Your task to perform on an android device: Clear all items from cart on costco. Search for sony triple a on costco, select the first entry, and add it to the cart. Image 0: 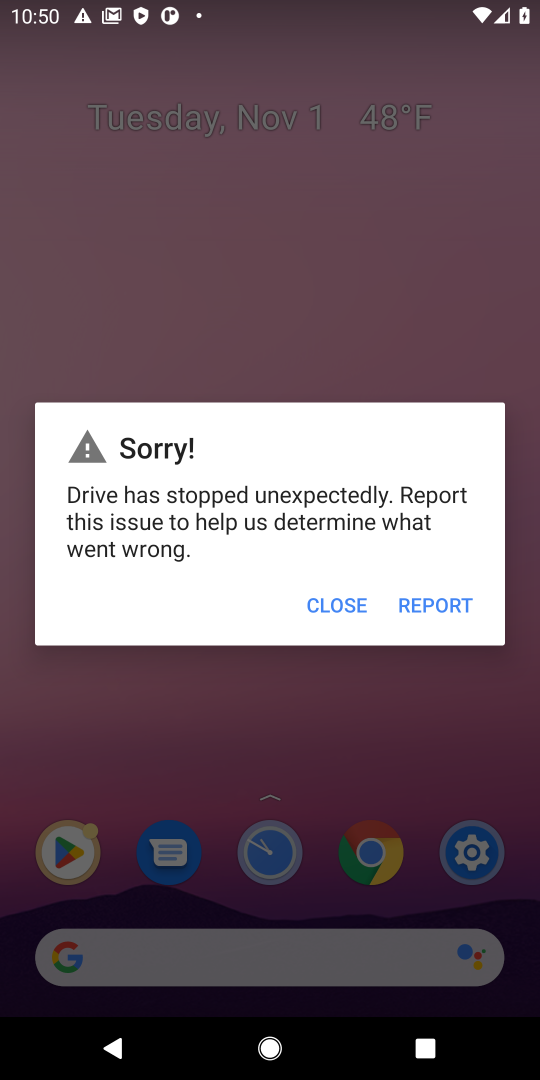
Step 0: press home button
Your task to perform on an android device: Clear all items from cart on costco. Search for sony triple a on costco, select the first entry, and add it to the cart. Image 1: 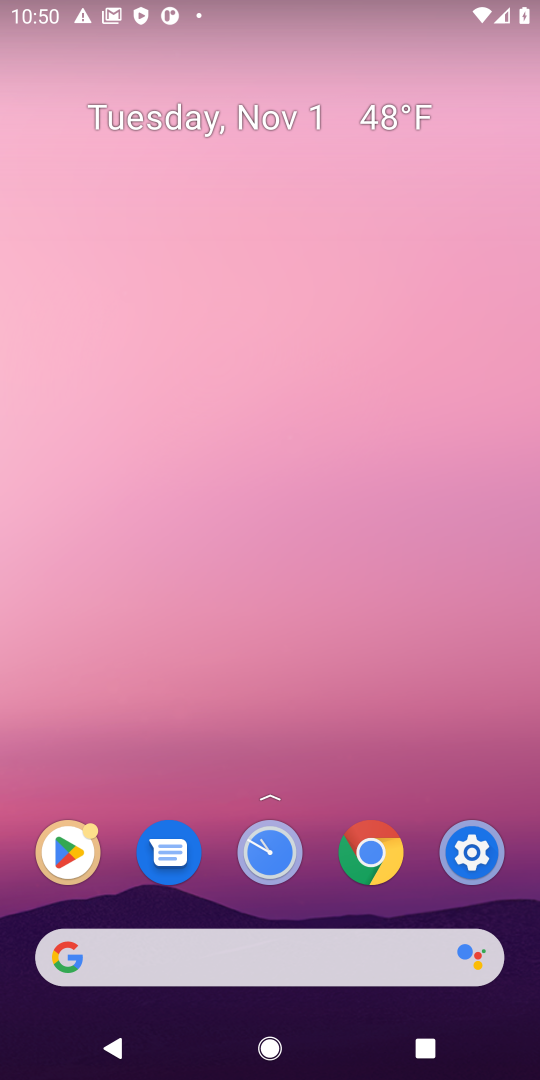
Step 1: click (247, 976)
Your task to perform on an android device: Clear all items from cart on costco. Search for sony triple a on costco, select the first entry, and add it to the cart. Image 2: 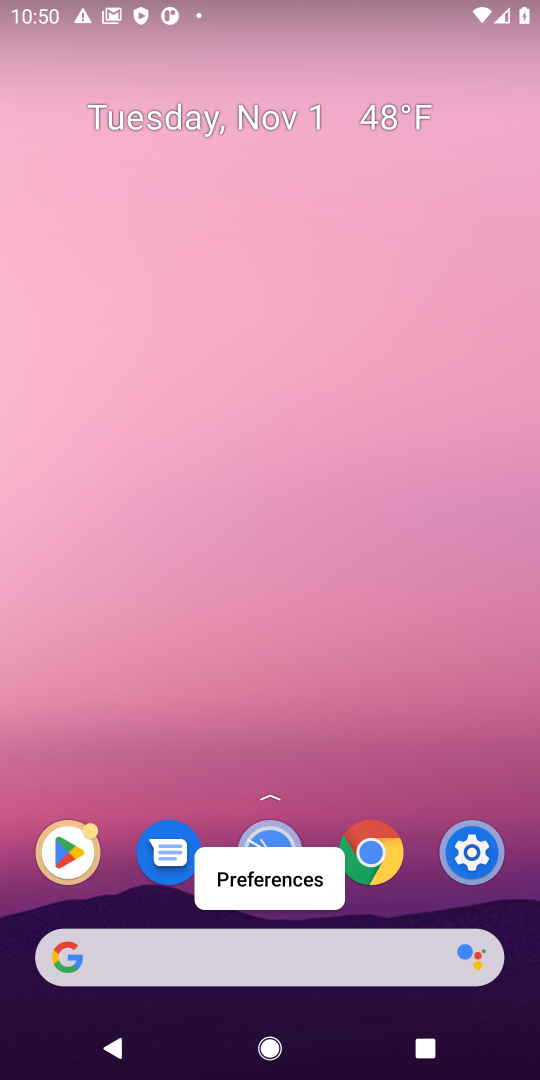
Step 2: click (391, 725)
Your task to perform on an android device: Clear all items from cart on costco. Search for sony triple a on costco, select the first entry, and add it to the cart. Image 3: 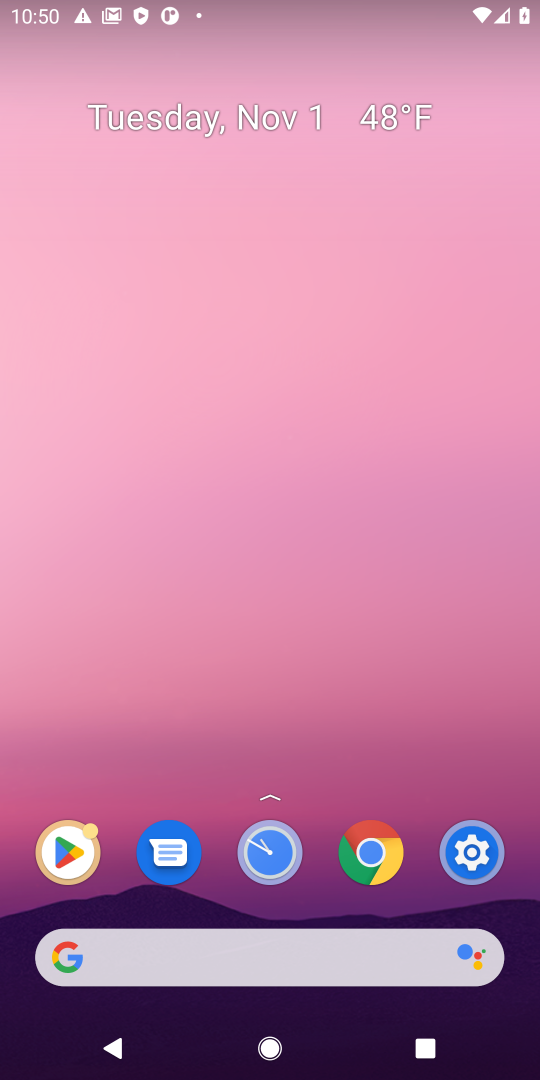
Step 3: click (323, 940)
Your task to perform on an android device: Clear all items from cart on costco. Search for sony triple a on costco, select the first entry, and add it to the cart. Image 4: 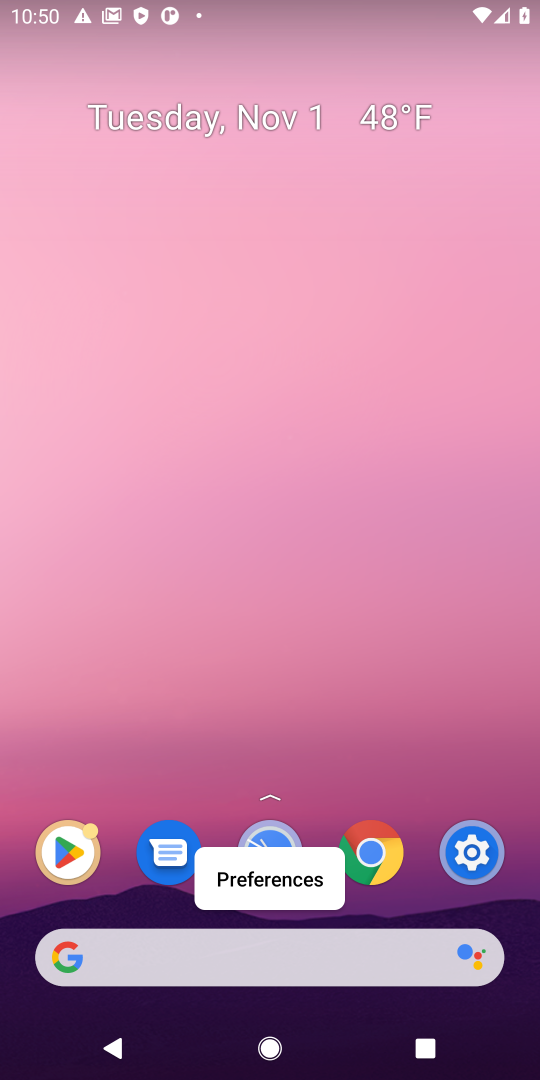
Step 4: click (323, 942)
Your task to perform on an android device: Clear all items from cart on costco. Search for sony triple a on costco, select the first entry, and add it to the cart. Image 5: 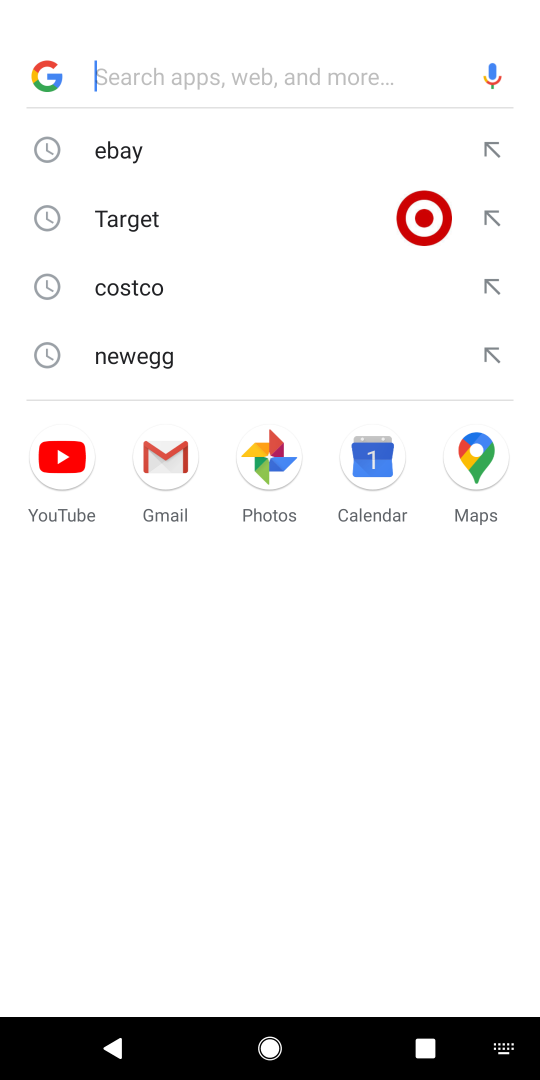
Step 5: click (162, 288)
Your task to perform on an android device: Clear all items from cart on costco. Search for sony triple a on costco, select the first entry, and add it to the cart. Image 6: 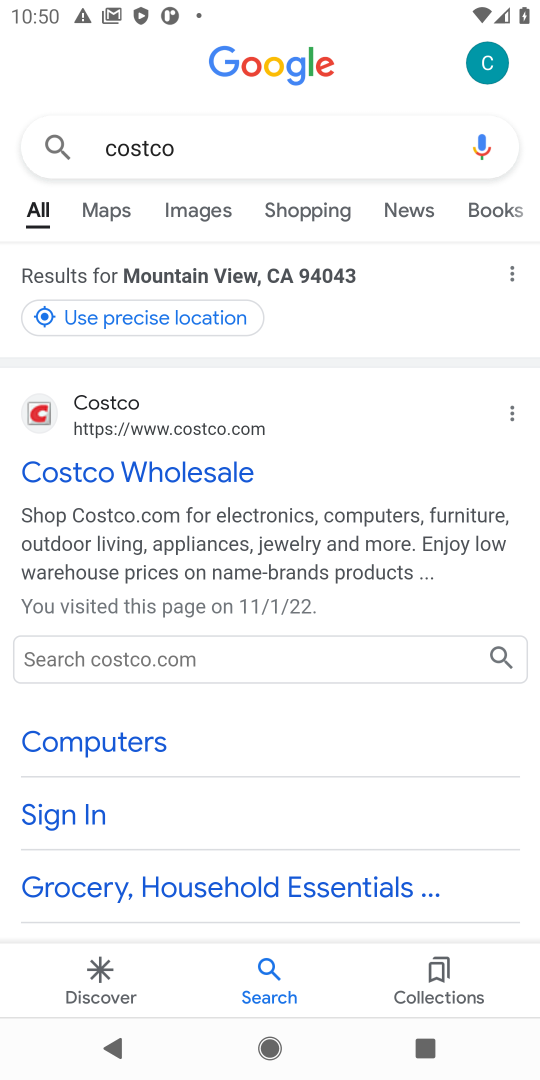
Step 6: click (141, 489)
Your task to perform on an android device: Clear all items from cart on costco. Search for sony triple a on costco, select the first entry, and add it to the cart. Image 7: 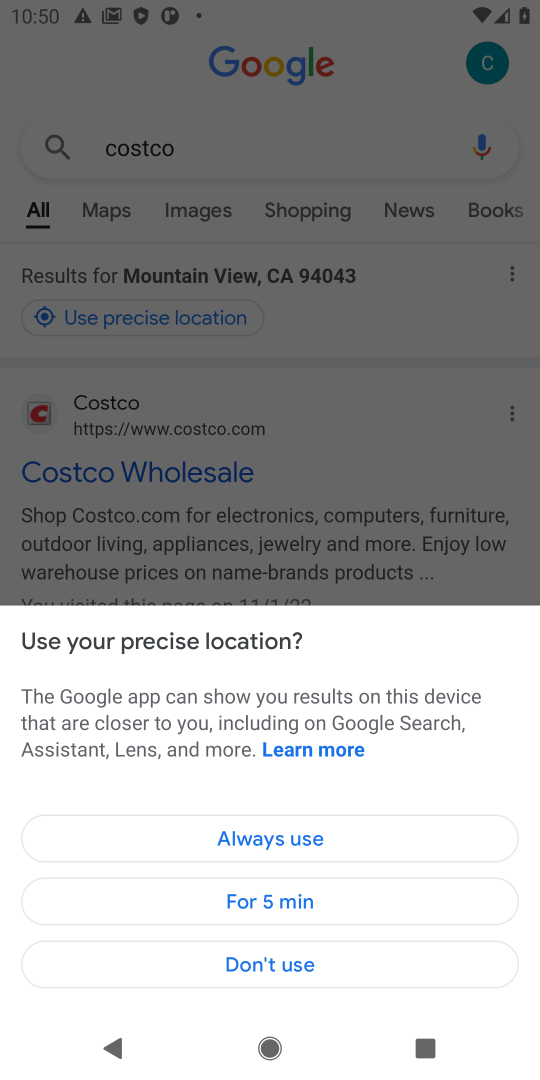
Step 7: click (305, 957)
Your task to perform on an android device: Clear all items from cart on costco. Search for sony triple a on costco, select the first entry, and add it to the cart. Image 8: 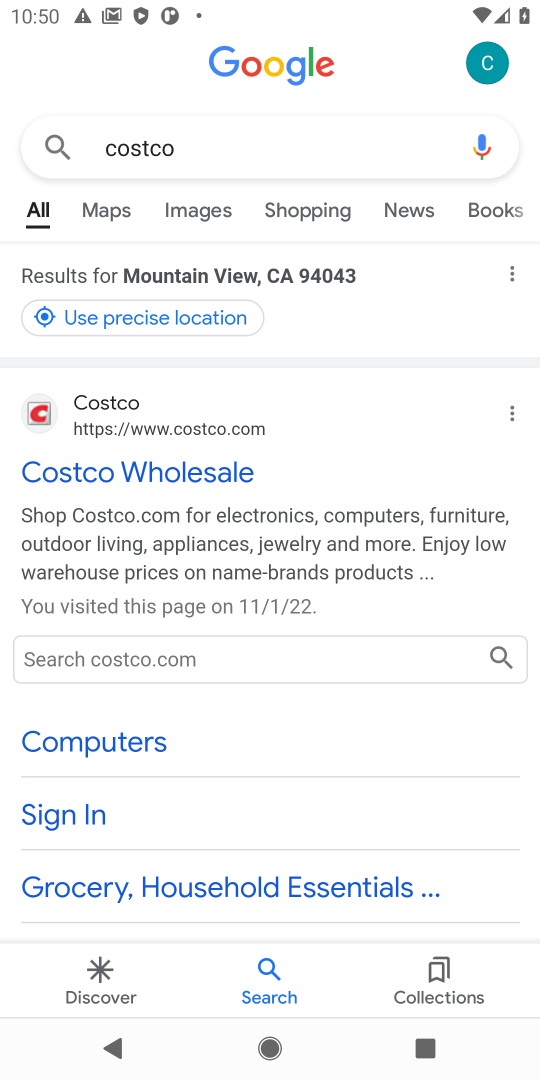
Step 8: click (125, 478)
Your task to perform on an android device: Clear all items from cart on costco. Search for sony triple a on costco, select the first entry, and add it to the cart. Image 9: 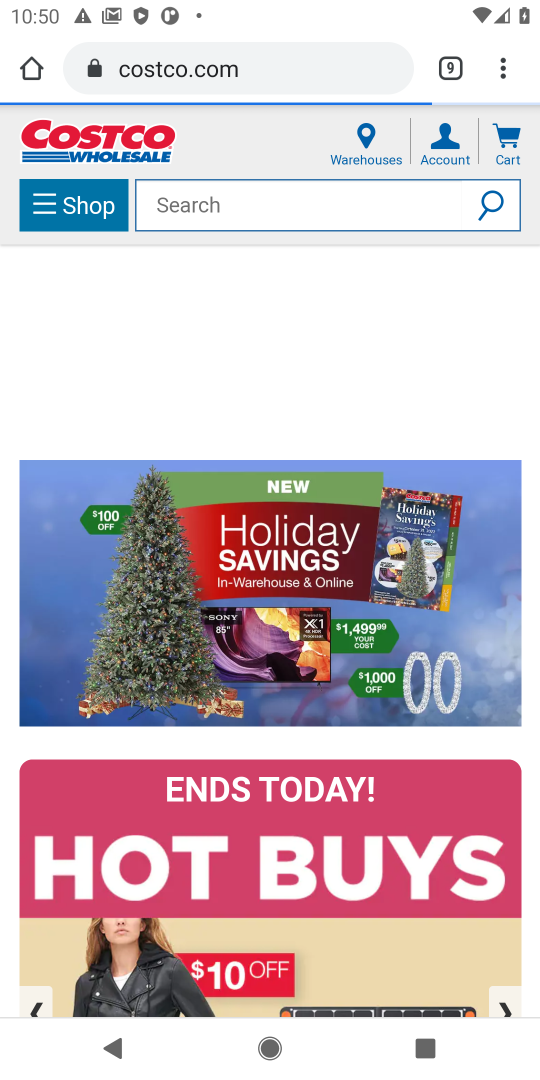
Step 9: click (235, 202)
Your task to perform on an android device: Clear all items from cart on costco. Search for sony triple a on costco, select the first entry, and add it to the cart. Image 10: 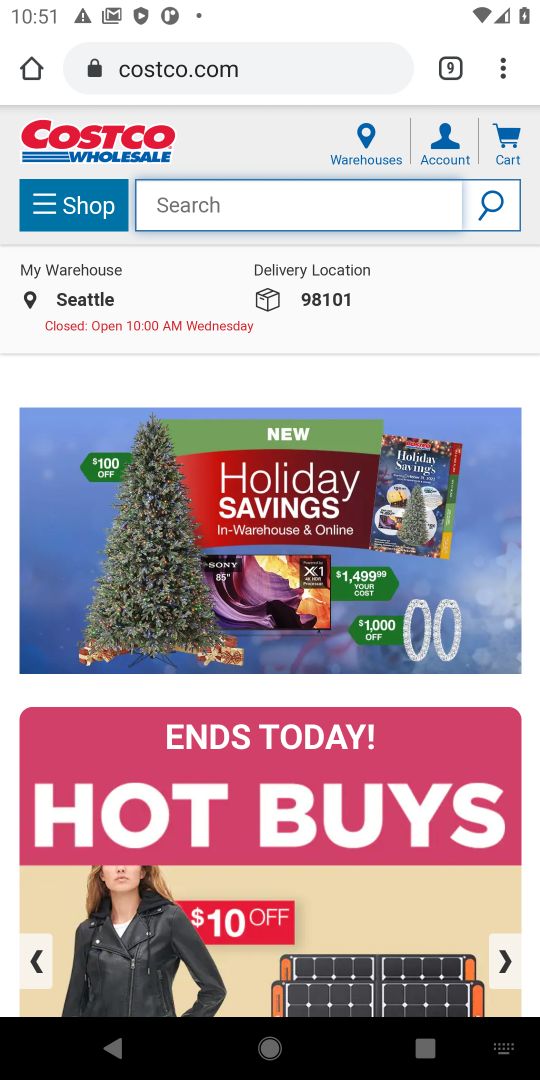
Step 10: type " sony triple a "
Your task to perform on an android device: Clear all items from cart on costco. Search for sony triple a on costco, select the first entry, and add it to the cart. Image 11: 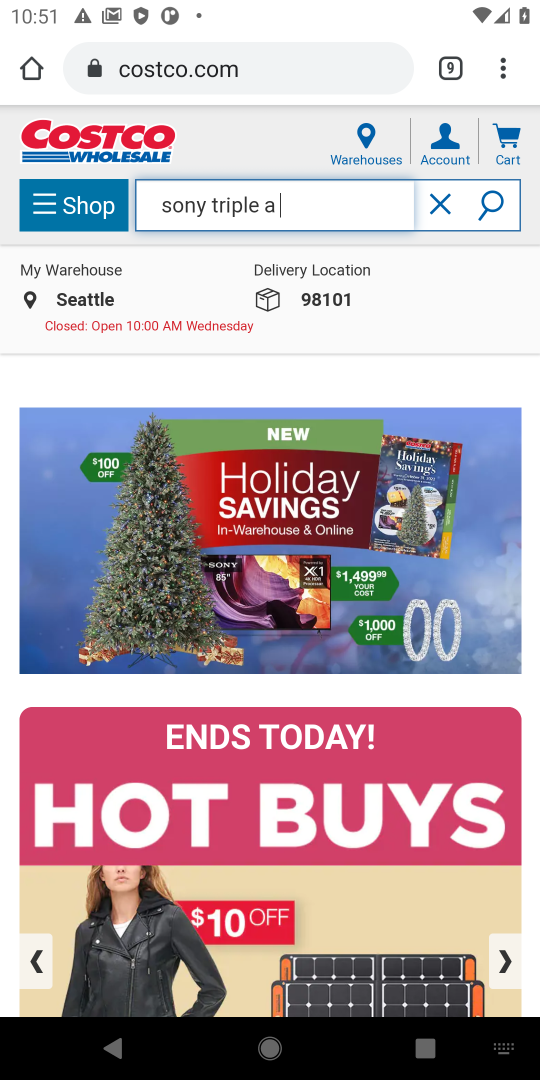
Step 11: type ""
Your task to perform on an android device: Clear all items from cart on costco. Search for sony triple a on costco, select the first entry, and add it to the cart. Image 12: 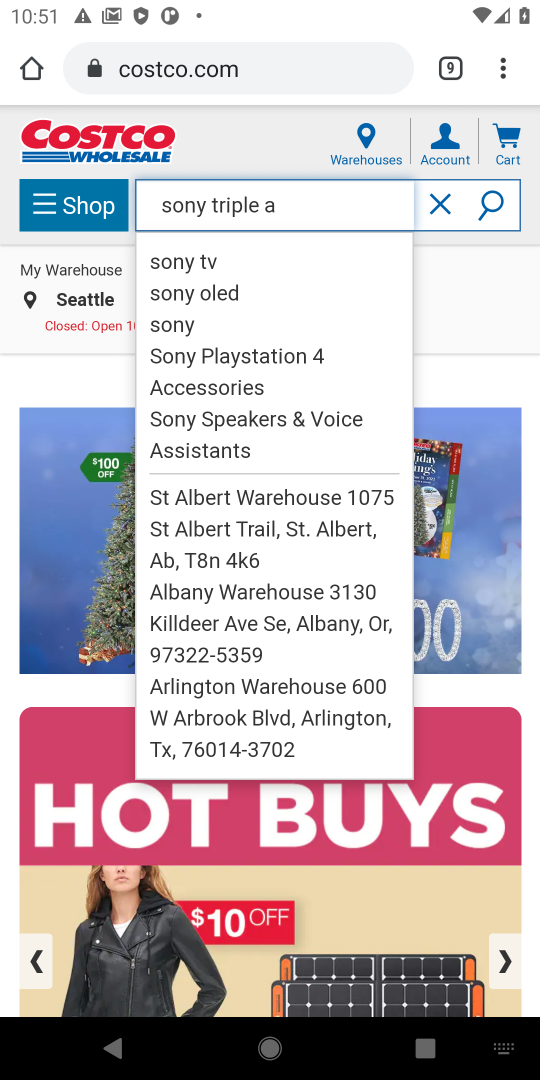
Step 12: click (488, 214)
Your task to perform on an android device: Clear all items from cart on costco. Search for sony triple a on costco, select the first entry, and add it to the cart. Image 13: 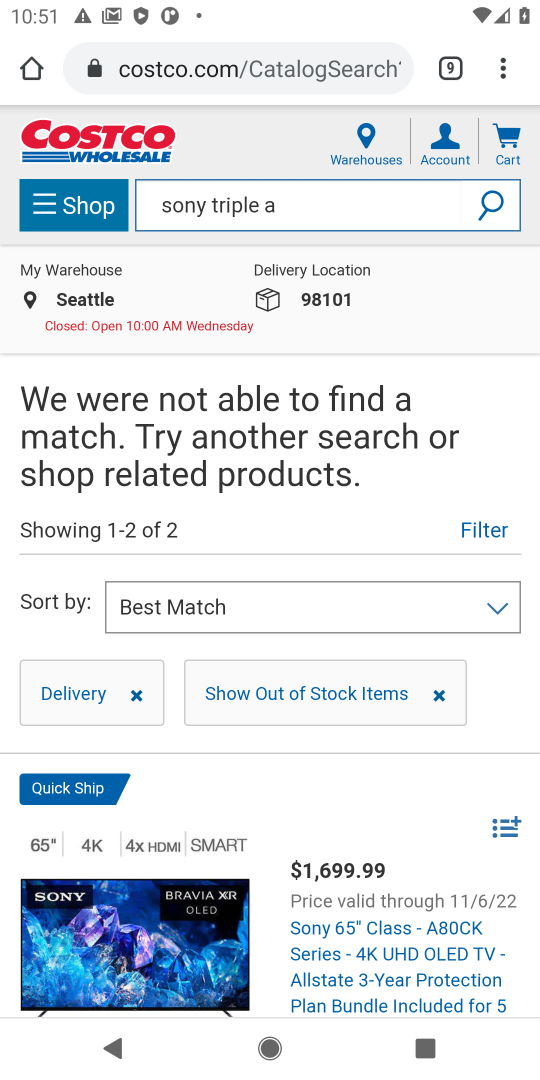
Step 13: drag from (390, 982) to (460, 265)
Your task to perform on an android device: Clear all items from cart on costco. Search for sony triple a on costco, select the first entry, and add it to the cart. Image 14: 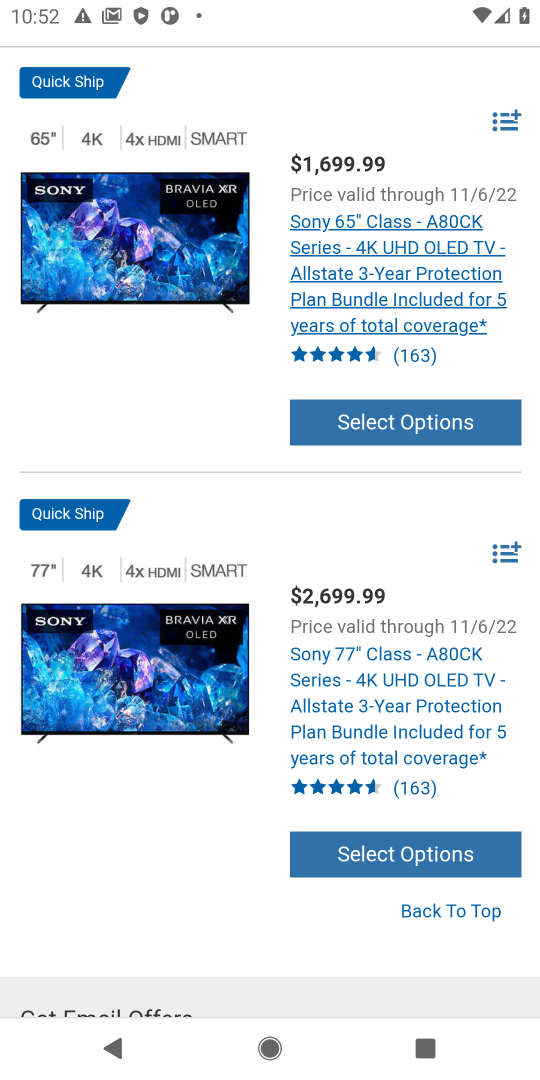
Step 14: click (460, 265)
Your task to perform on an android device: Clear all items from cart on costco. Search for sony triple a on costco, select the first entry, and add it to the cart. Image 15: 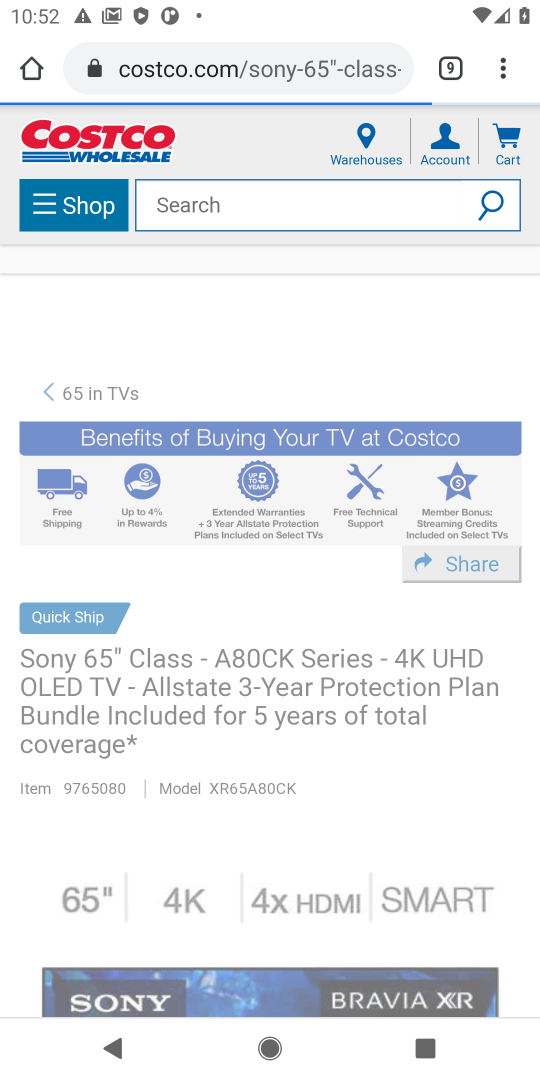
Step 15: drag from (248, 756) to (345, 560)
Your task to perform on an android device: Clear all items from cart on costco. Search for sony triple a on costco, select the first entry, and add it to the cart. Image 16: 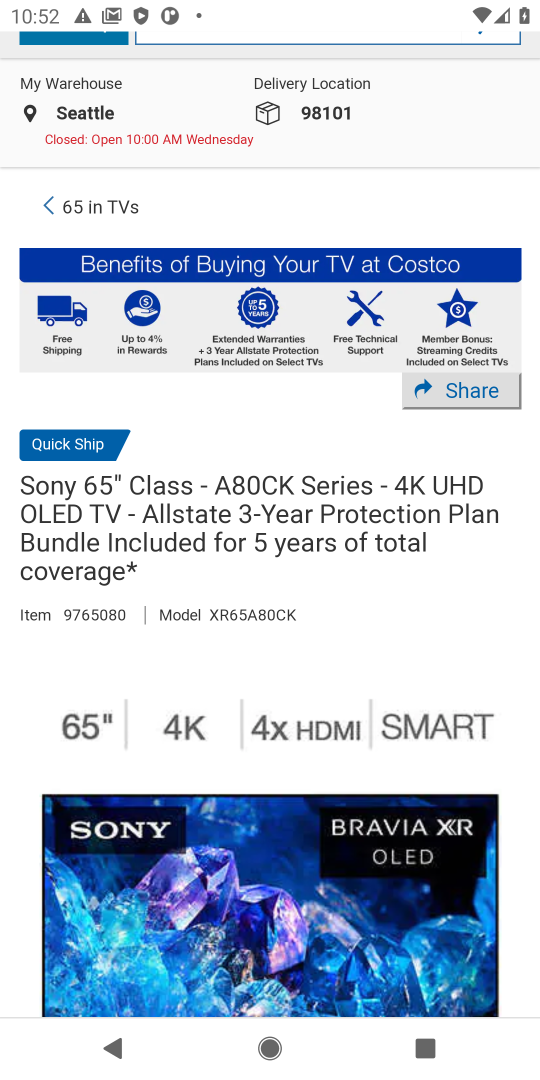
Step 16: drag from (235, 760) to (400, 249)
Your task to perform on an android device: Clear all items from cart on costco. Search for sony triple a on costco, select the first entry, and add it to the cart. Image 17: 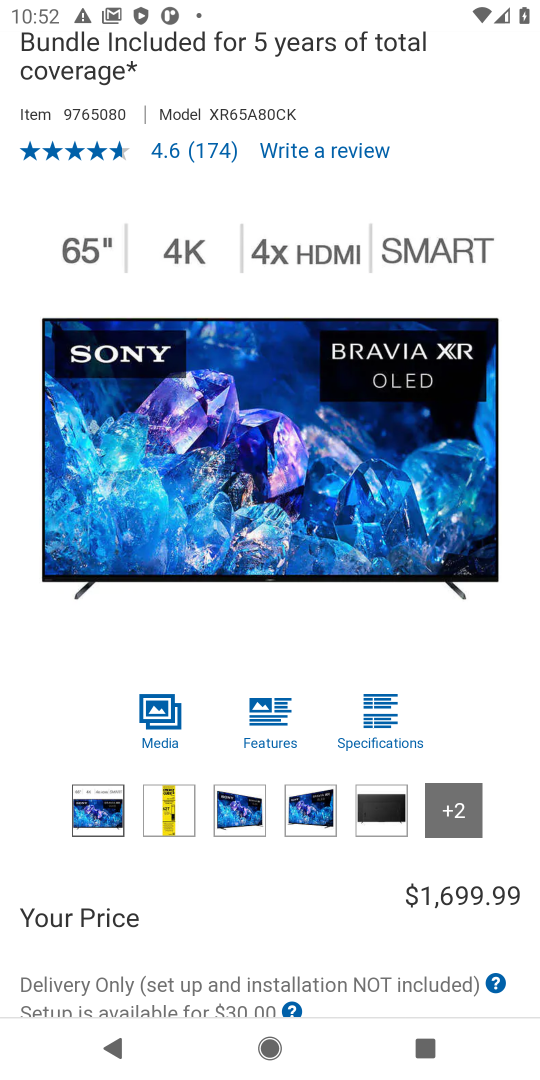
Step 17: drag from (327, 925) to (325, 374)
Your task to perform on an android device: Clear all items from cart on costco. Search for sony triple a on costco, select the first entry, and add it to the cart. Image 18: 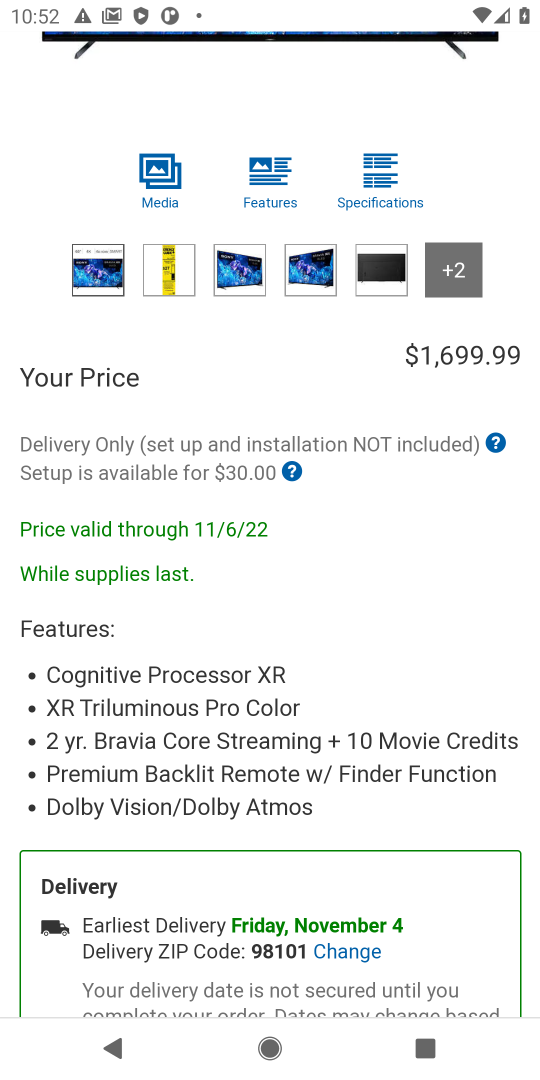
Step 18: drag from (376, 835) to (361, 450)
Your task to perform on an android device: Clear all items from cart on costco. Search for sony triple a on costco, select the first entry, and add it to the cart. Image 19: 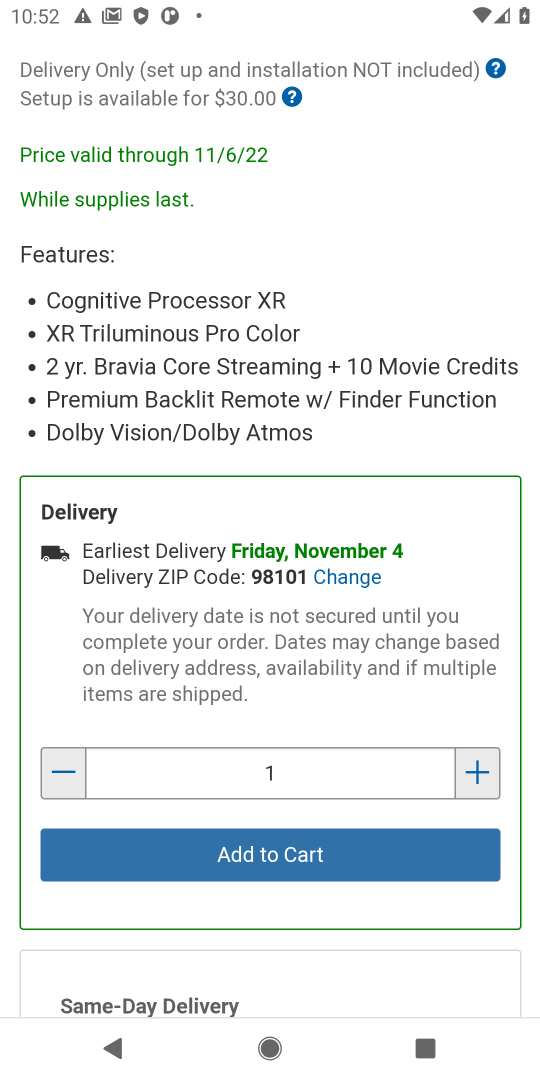
Step 19: click (231, 861)
Your task to perform on an android device: Clear all items from cart on costco. Search for sony triple a on costco, select the first entry, and add it to the cart. Image 20: 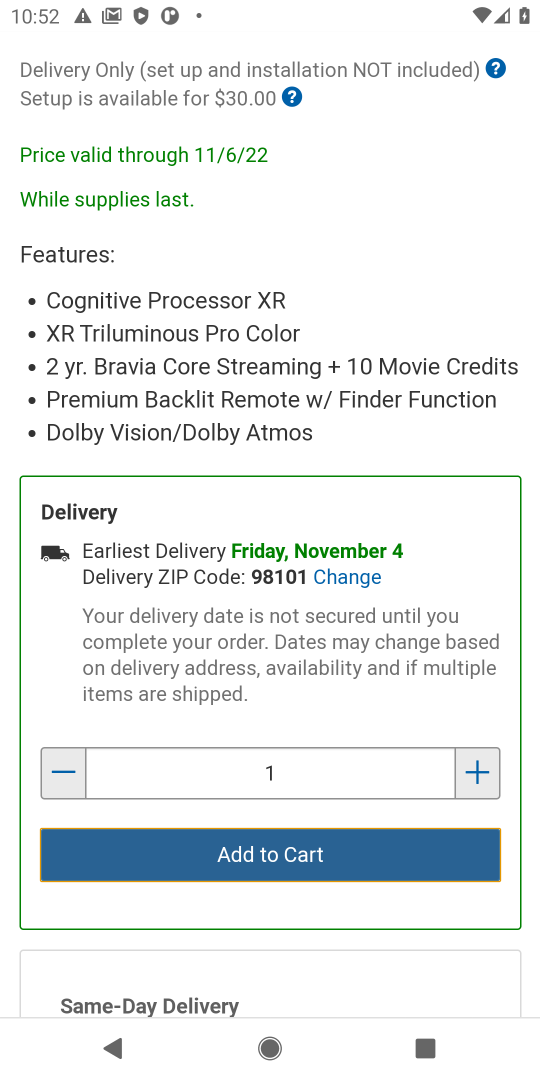
Step 20: click (243, 849)
Your task to perform on an android device: Clear all items from cart on costco. Search for sony triple a on costco, select the first entry, and add it to the cart. Image 21: 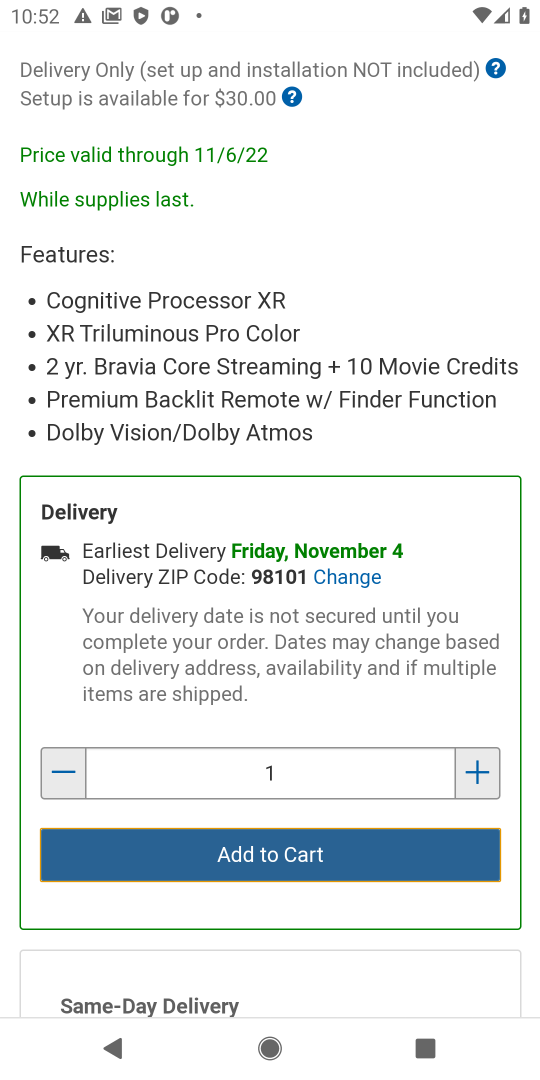
Step 21: click (245, 846)
Your task to perform on an android device: Clear all items from cart on costco. Search for sony triple a on costco, select the first entry, and add it to the cart. Image 22: 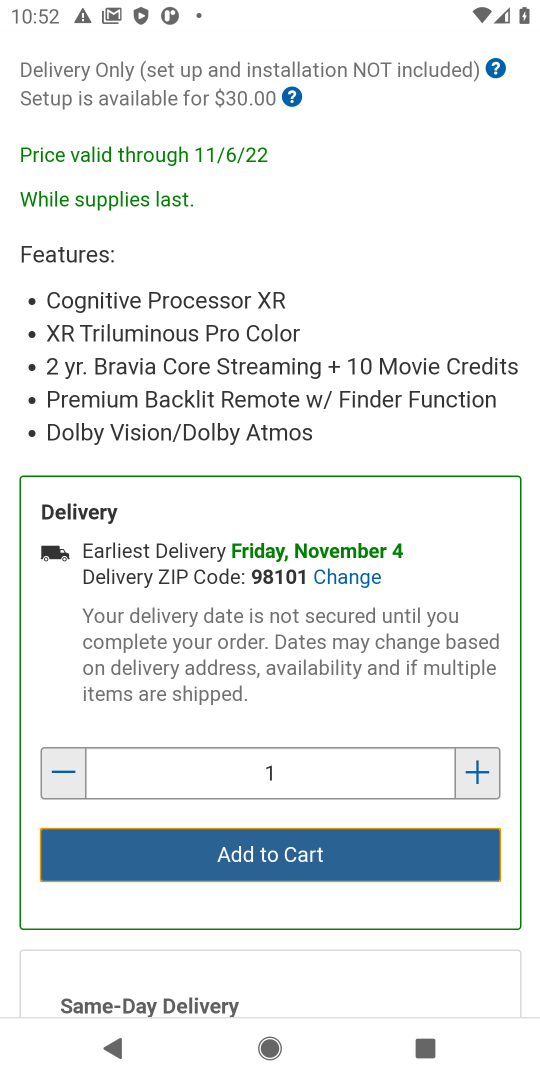
Step 22: click (245, 846)
Your task to perform on an android device: Clear all items from cart on costco. Search for sony triple a on costco, select the first entry, and add it to the cart. Image 23: 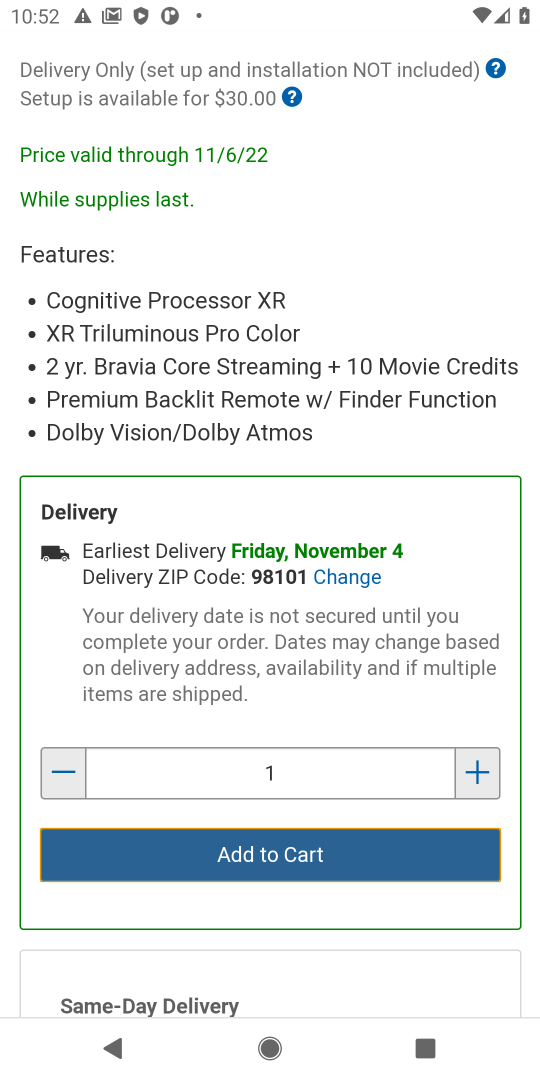
Step 23: click (245, 846)
Your task to perform on an android device: Clear all items from cart on costco. Search for sony triple a on costco, select the first entry, and add it to the cart. Image 24: 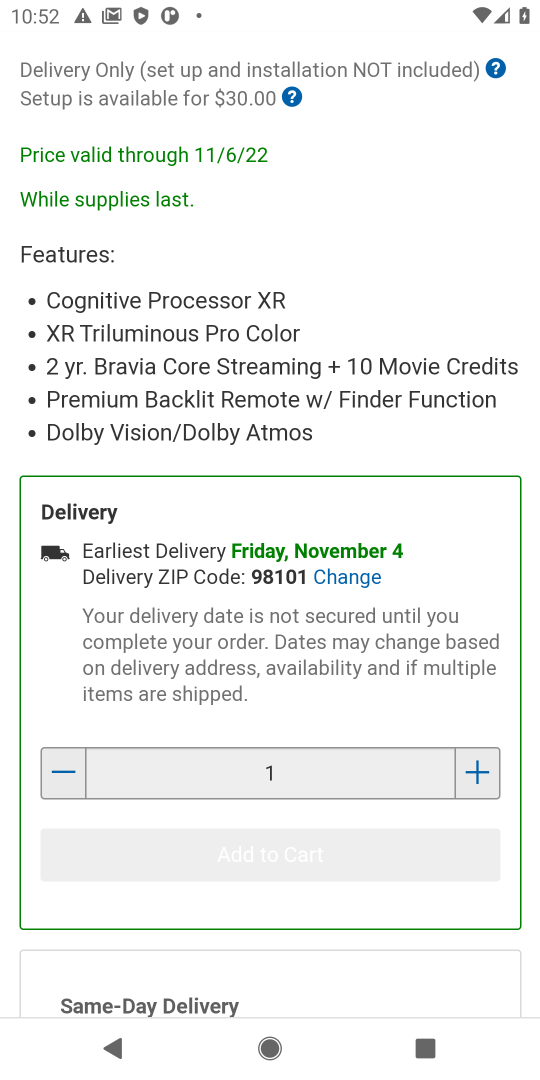
Step 24: click (245, 846)
Your task to perform on an android device: Clear all items from cart on costco. Search for sony triple a on costco, select the first entry, and add it to the cart. Image 25: 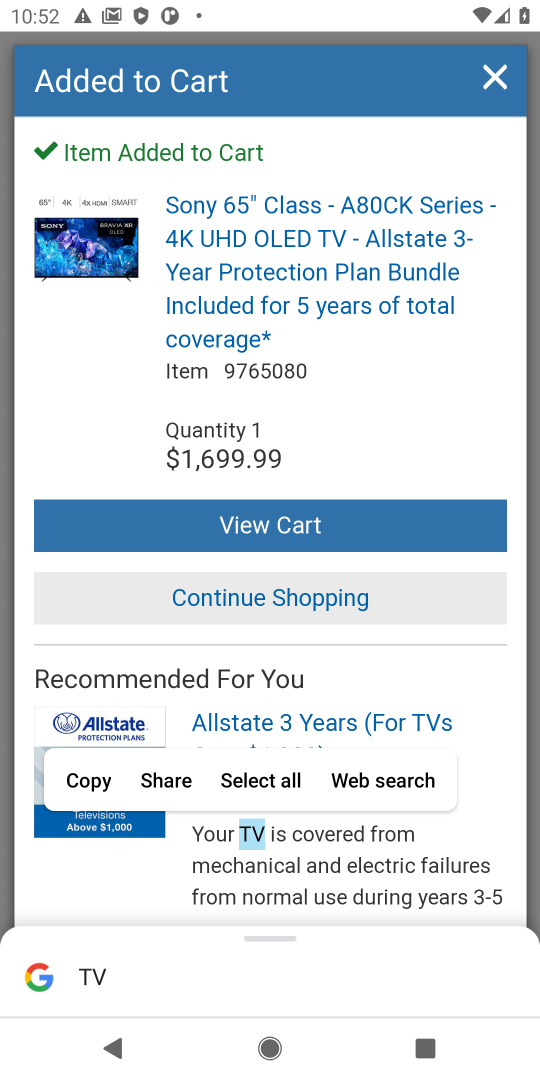
Step 25: click (245, 846)
Your task to perform on an android device: Clear all items from cart on costco. Search for sony triple a on costco, select the first entry, and add it to the cart. Image 26: 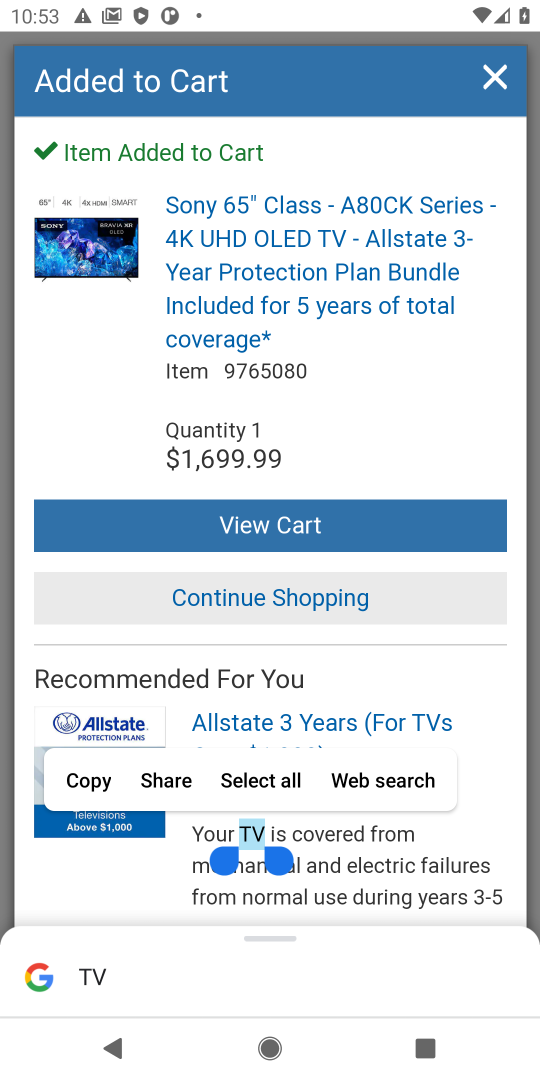
Step 26: click (246, 846)
Your task to perform on an android device: Clear all items from cart on costco. Search for sony triple a on costco, select the first entry, and add it to the cart. Image 27: 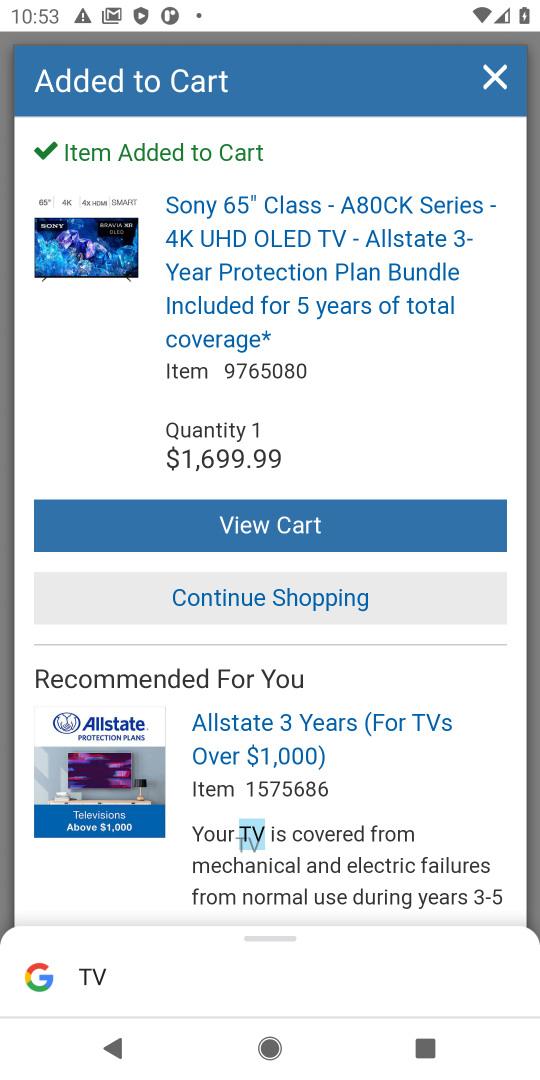
Step 27: click (258, 831)
Your task to perform on an android device: Clear all items from cart on costco. Search for sony triple a on costco, select the first entry, and add it to the cart. Image 28: 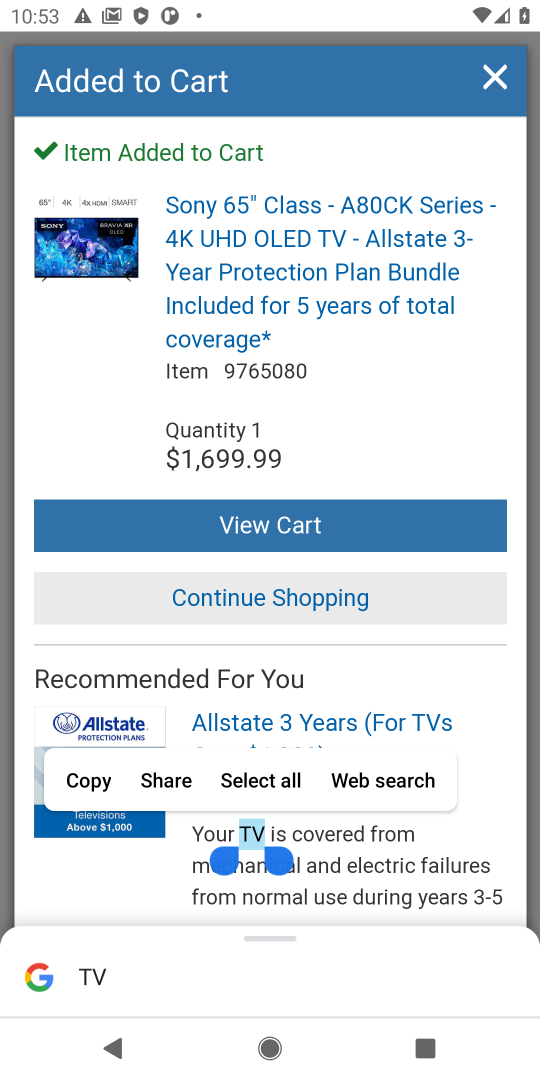
Step 28: click (258, 831)
Your task to perform on an android device: Clear all items from cart on costco. Search for sony triple a on costco, select the first entry, and add it to the cart. Image 29: 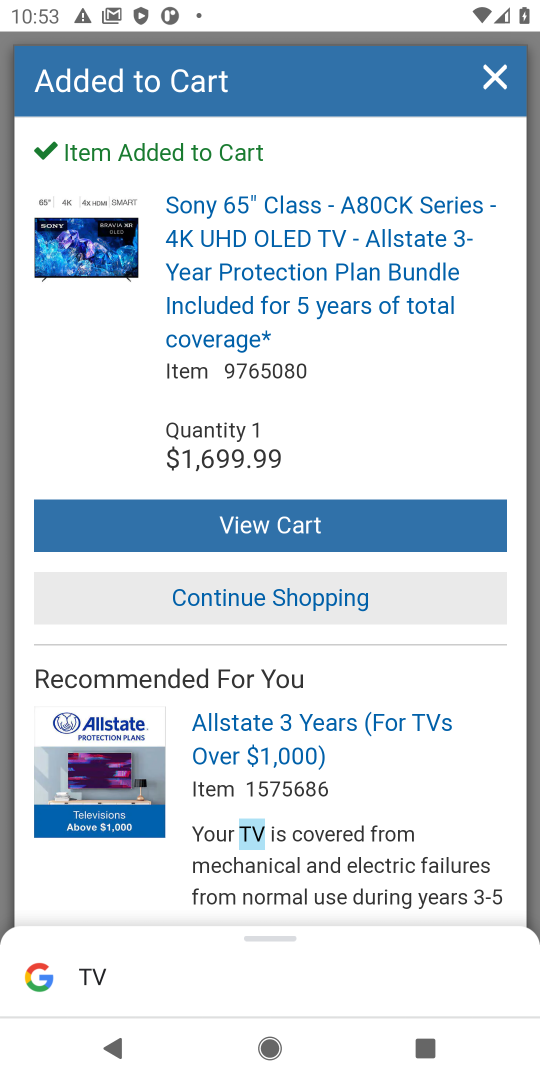
Step 29: click (258, 831)
Your task to perform on an android device: Clear all items from cart on costco. Search for sony triple a on costco, select the first entry, and add it to the cart. Image 30: 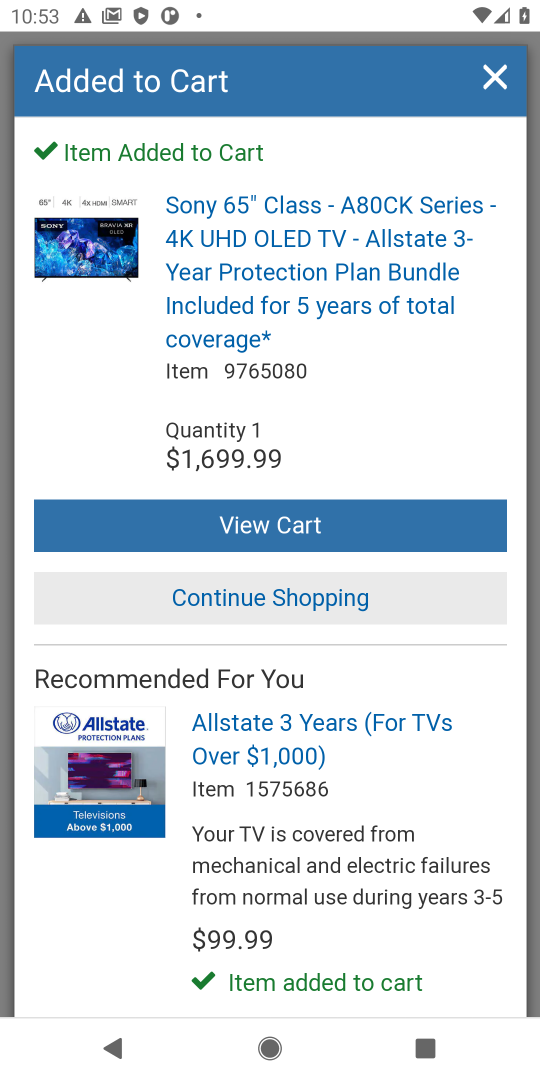
Step 30: click (258, 831)
Your task to perform on an android device: Clear all items from cart on costco. Search for sony triple a on costco, select the first entry, and add it to the cart. Image 31: 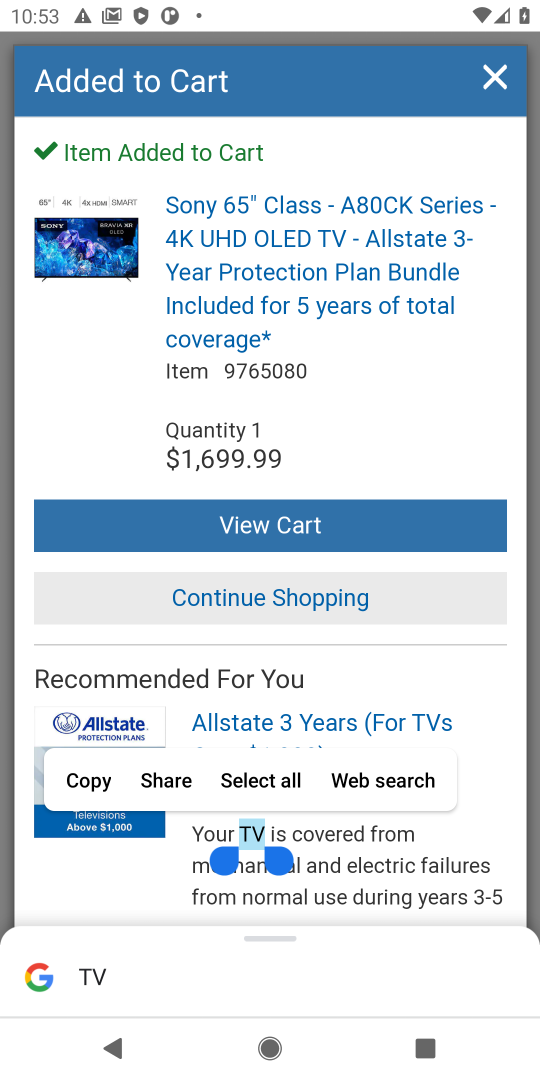
Step 31: click (305, 831)
Your task to perform on an android device: Clear all items from cart on costco. Search for sony triple a on costco, select the first entry, and add it to the cart. Image 32: 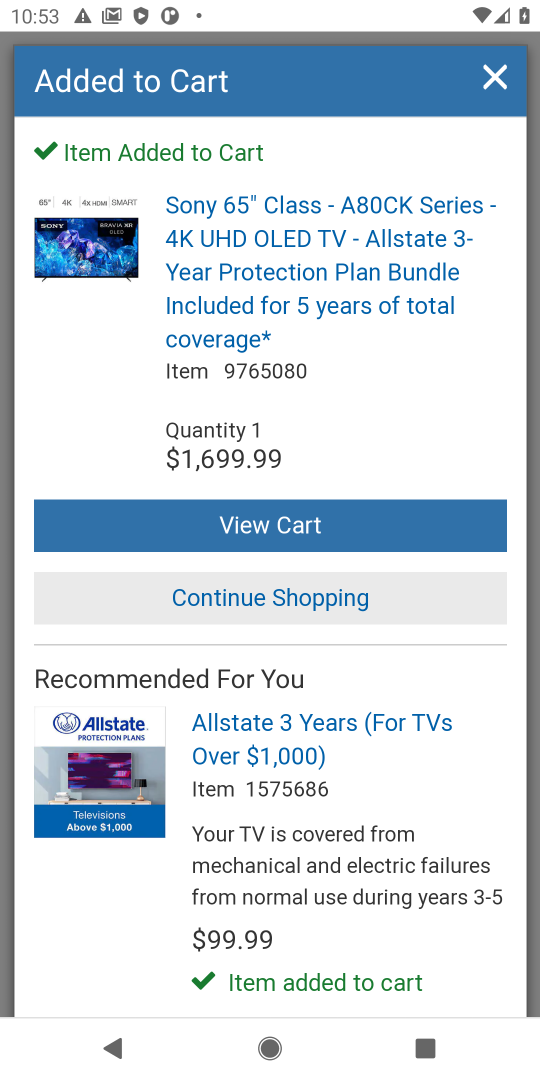
Step 32: click (349, 535)
Your task to perform on an android device: Clear all items from cart on costco. Search for sony triple a on costco, select the first entry, and add it to the cart. Image 33: 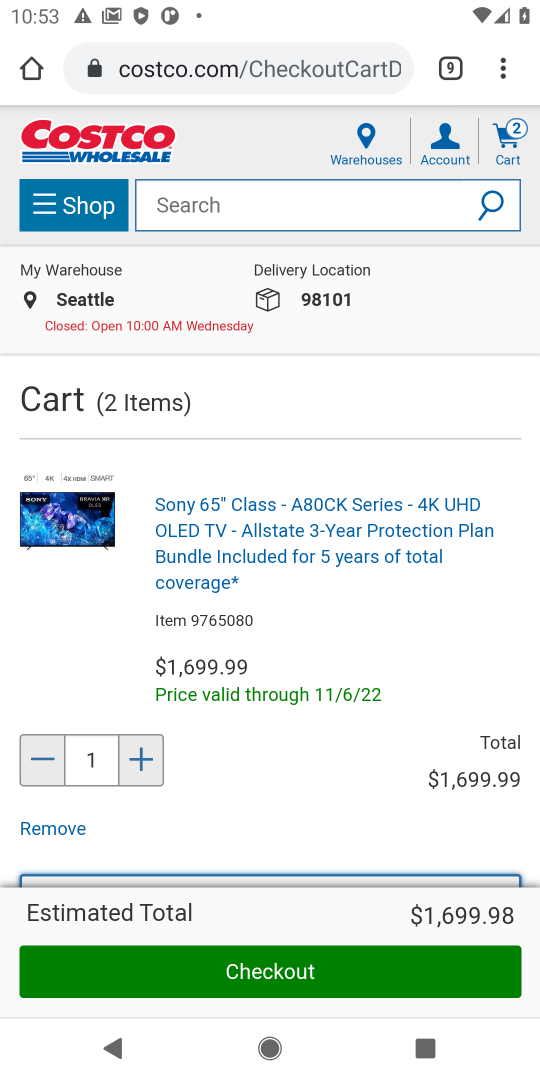
Step 33: task complete